Your task to perform on an android device: toggle show notifications on the lock screen Image 0: 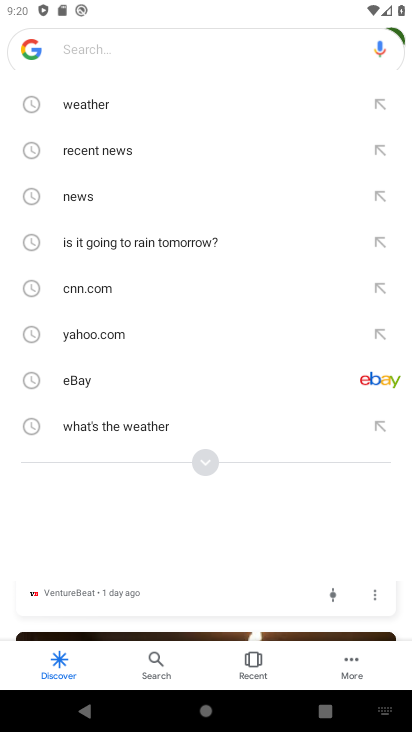
Step 0: press home button
Your task to perform on an android device: toggle show notifications on the lock screen Image 1: 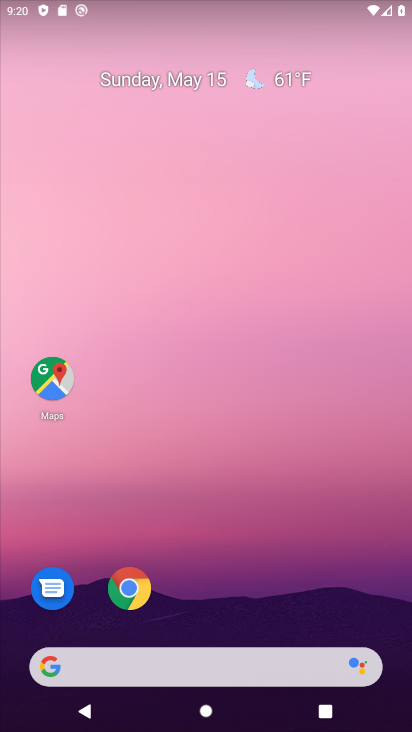
Step 1: drag from (244, 498) to (282, 152)
Your task to perform on an android device: toggle show notifications on the lock screen Image 2: 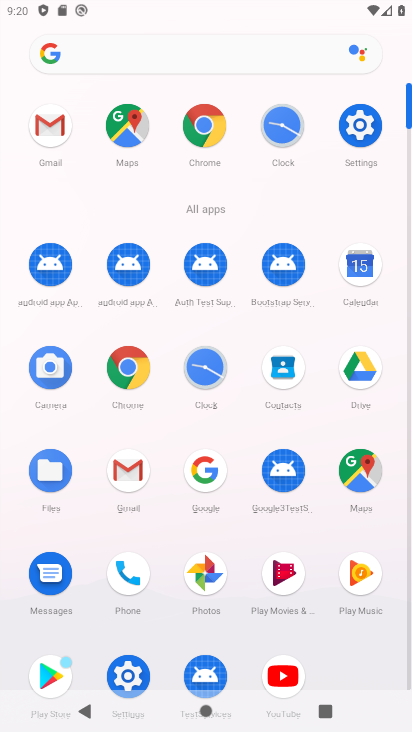
Step 2: click (364, 134)
Your task to perform on an android device: toggle show notifications on the lock screen Image 3: 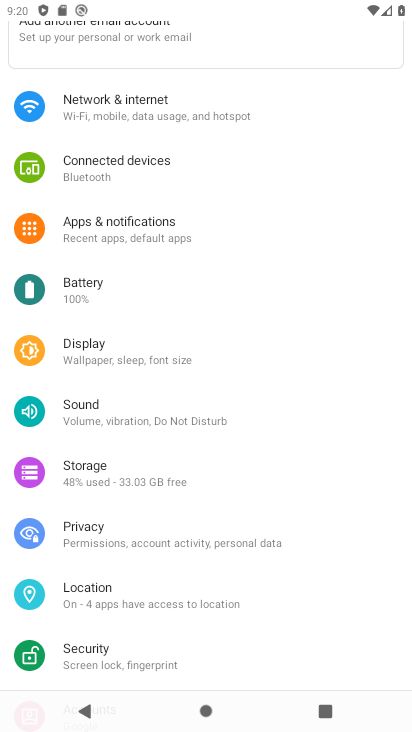
Step 3: click (116, 236)
Your task to perform on an android device: toggle show notifications on the lock screen Image 4: 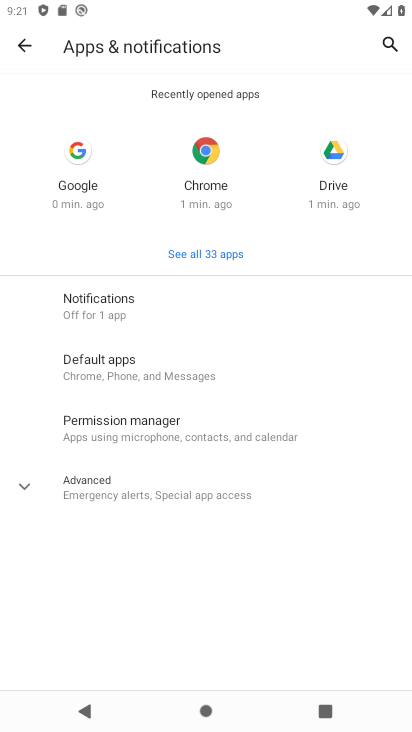
Step 4: click (132, 314)
Your task to perform on an android device: toggle show notifications on the lock screen Image 5: 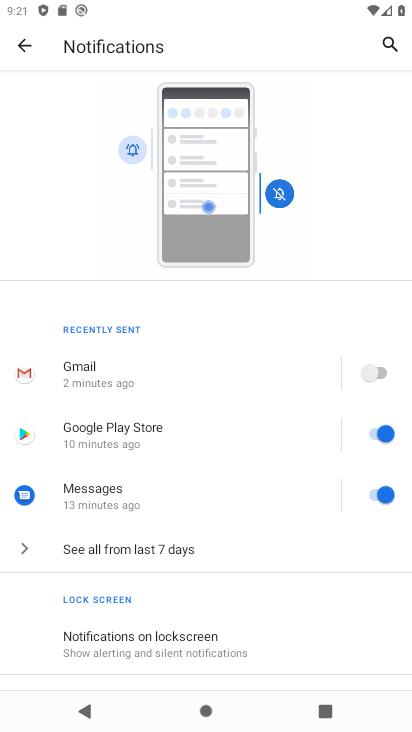
Step 5: click (118, 635)
Your task to perform on an android device: toggle show notifications on the lock screen Image 6: 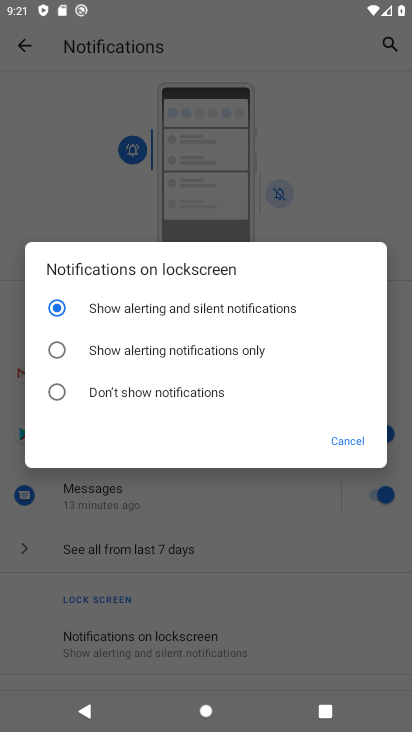
Step 6: click (78, 386)
Your task to perform on an android device: toggle show notifications on the lock screen Image 7: 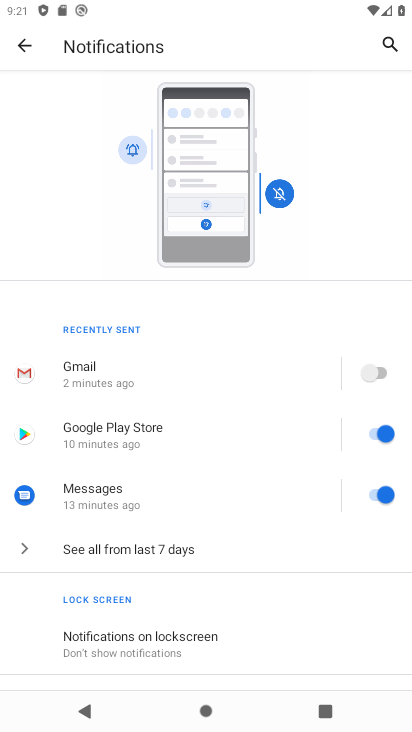
Step 7: task complete